Your task to perform on an android device: delete a single message in the gmail app Image 0: 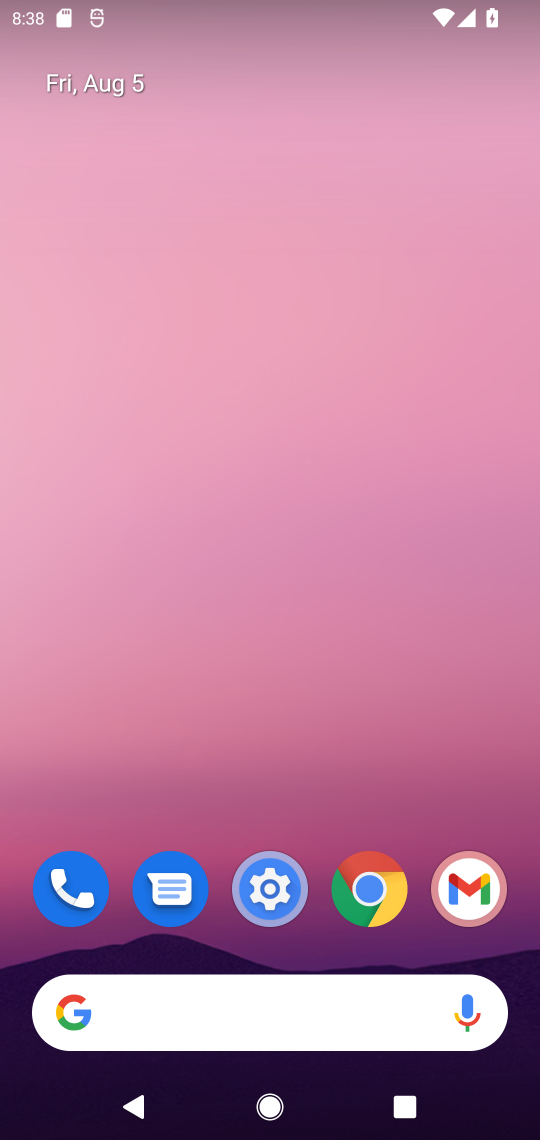
Step 0: drag from (172, 1049) to (215, 233)
Your task to perform on an android device: delete a single message in the gmail app Image 1: 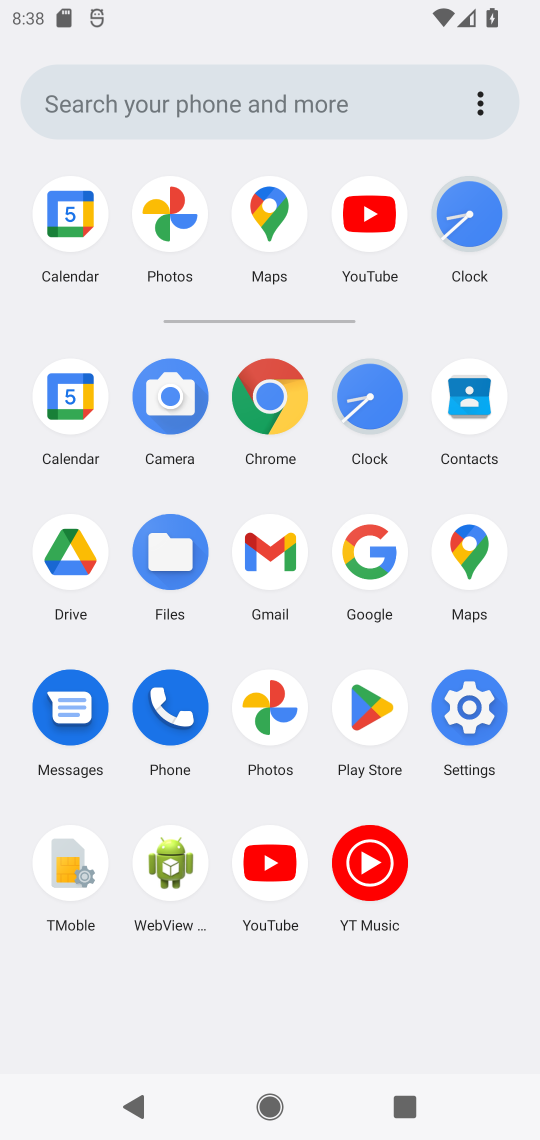
Step 1: click (279, 569)
Your task to perform on an android device: delete a single message in the gmail app Image 2: 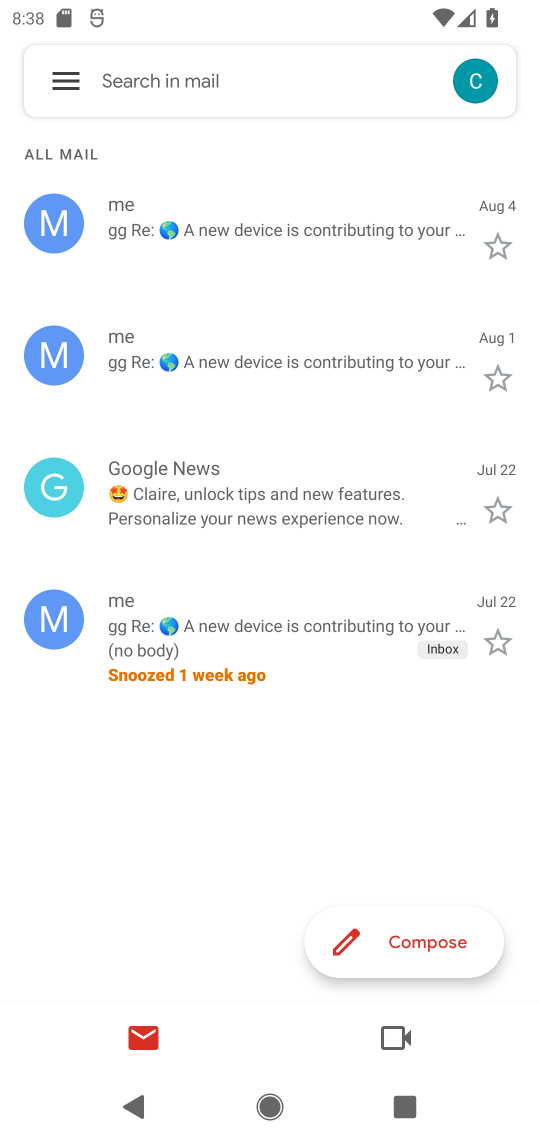
Step 2: click (186, 228)
Your task to perform on an android device: delete a single message in the gmail app Image 3: 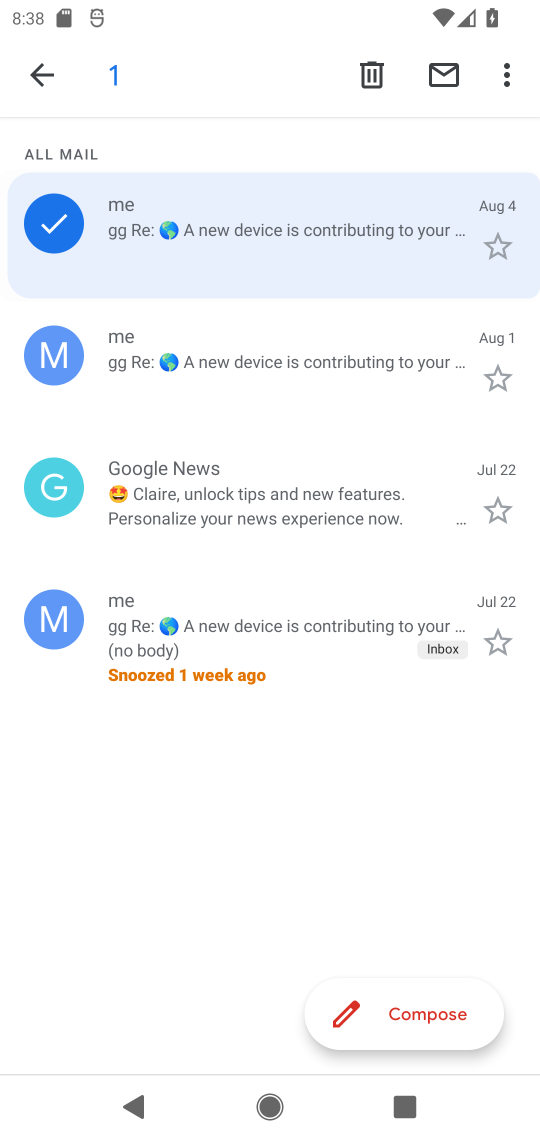
Step 3: click (358, 60)
Your task to perform on an android device: delete a single message in the gmail app Image 4: 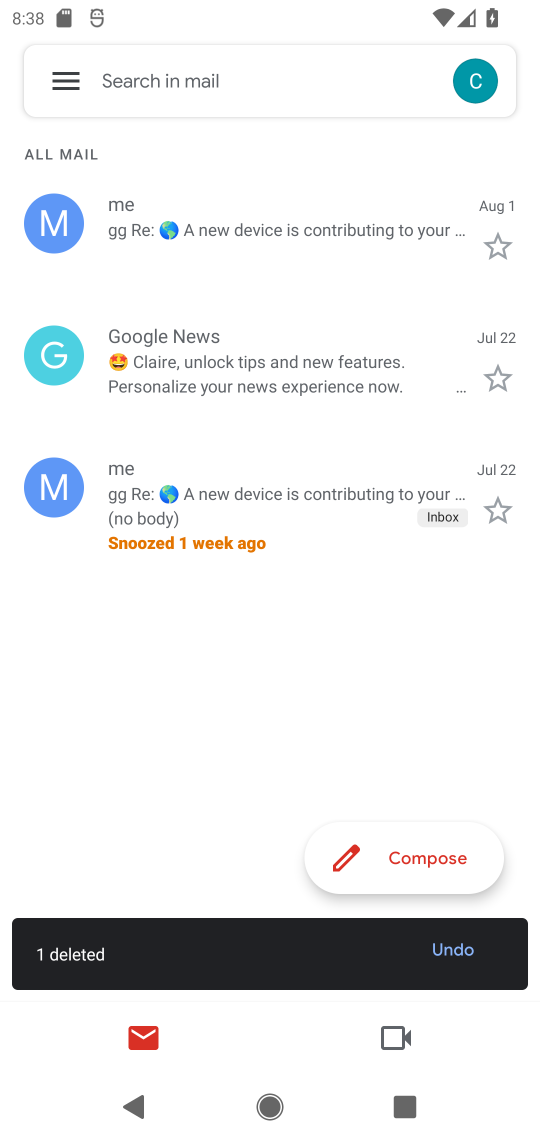
Step 4: click (74, 972)
Your task to perform on an android device: delete a single message in the gmail app Image 5: 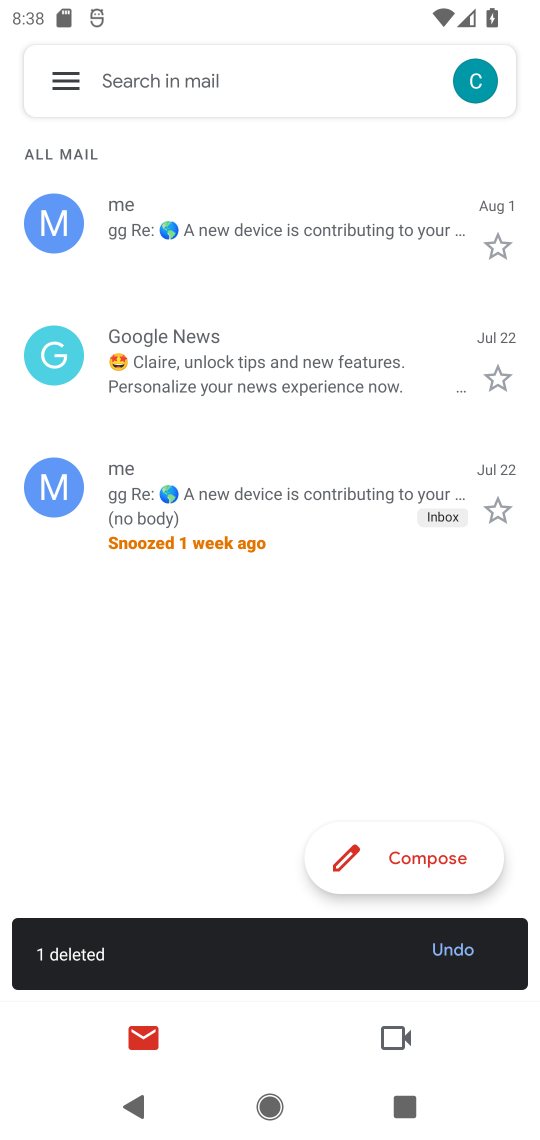
Step 5: task complete